Your task to perform on an android device: snooze an email in the gmail app Image 0: 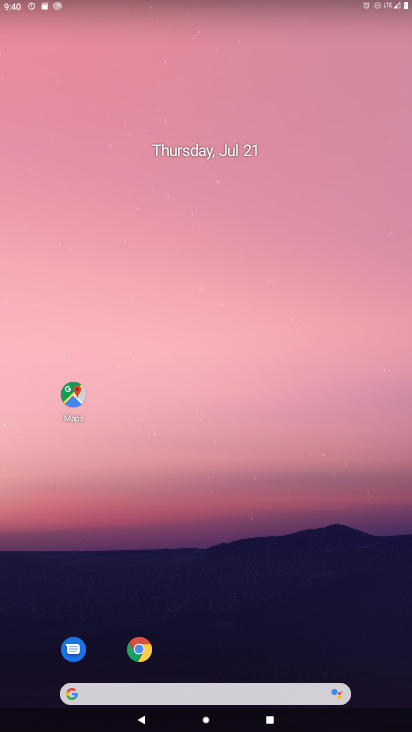
Step 0: drag from (322, 658) to (190, 51)
Your task to perform on an android device: snooze an email in the gmail app Image 1: 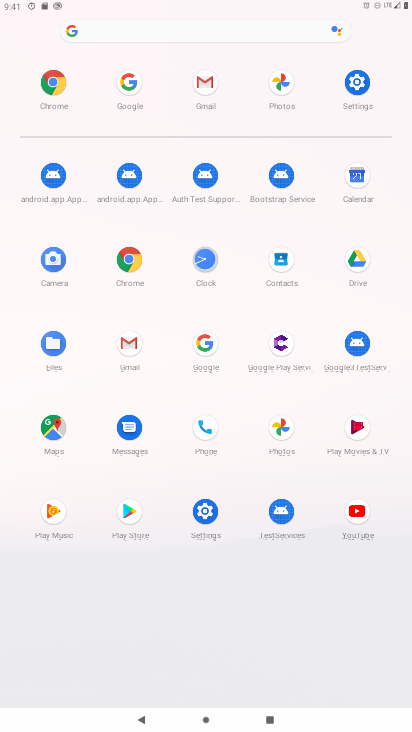
Step 1: click (130, 345)
Your task to perform on an android device: snooze an email in the gmail app Image 2: 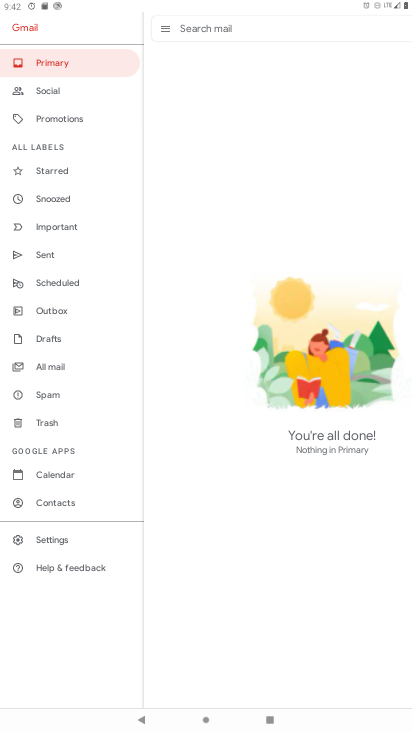
Step 2: task complete